Your task to perform on an android device: create a new album in the google photos Image 0: 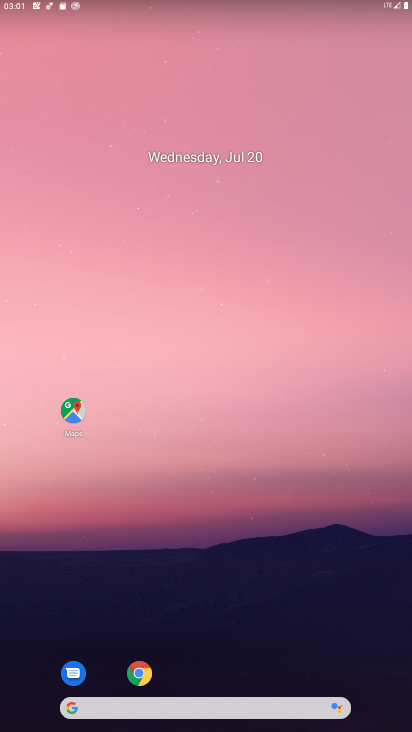
Step 0: drag from (207, 672) to (190, 56)
Your task to perform on an android device: create a new album in the google photos Image 1: 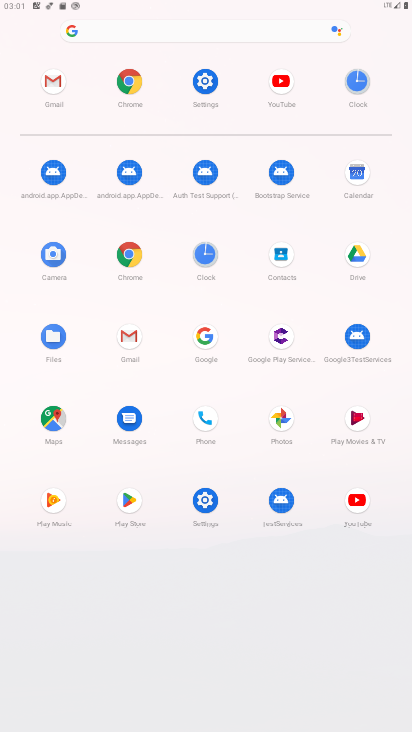
Step 1: click (285, 434)
Your task to perform on an android device: create a new album in the google photos Image 2: 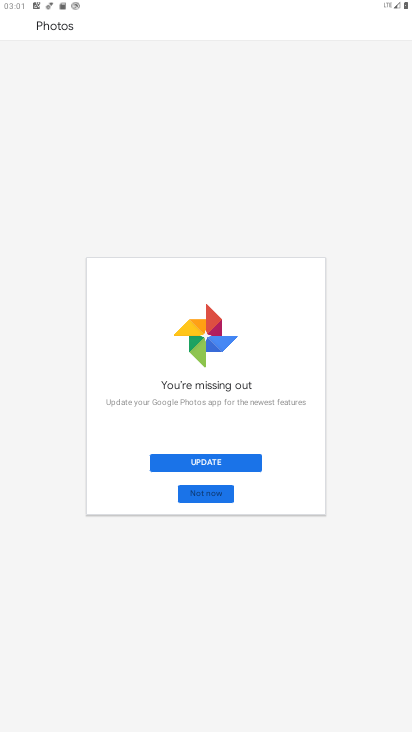
Step 2: click (216, 496)
Your task to perform on an android device: create a new album in the google photos Image 3: 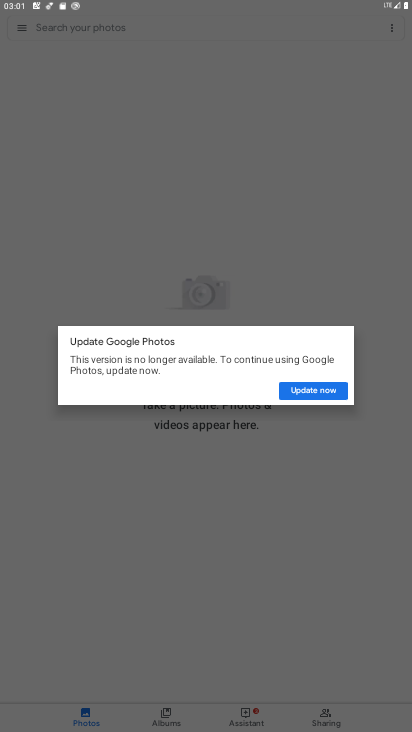
Step 3: click (294, 389)
Your task to perform on an android device: create a new album in the google photos Image 4: 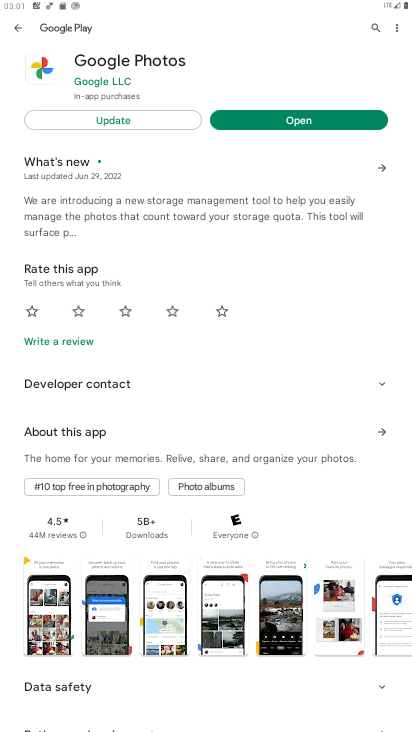
Step 4: click (289, 117)
Your task to perform on an android device: create a new album in the google photos Image 5: 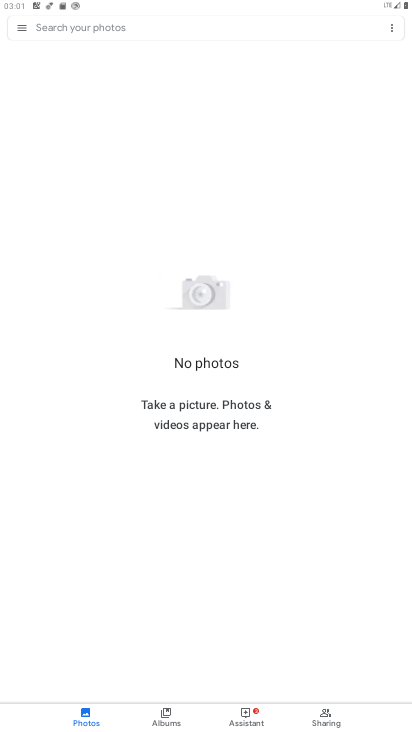
Step 5: click (162, 715)
Your task to perform on an android device: create a new album in the google photos Image 6: 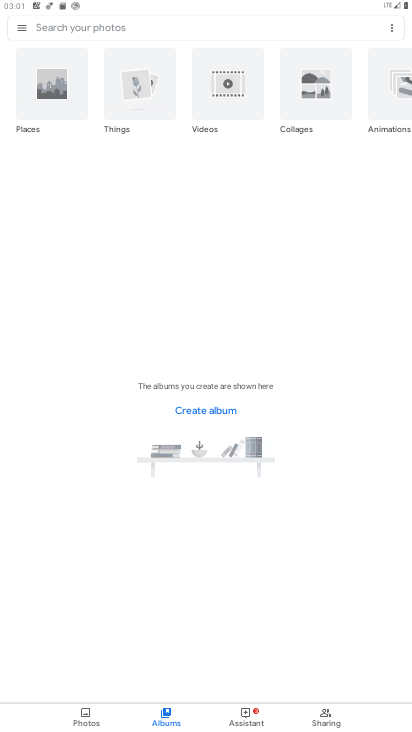
Step 6: click (205, 408)
Your task to perform on an android device: create a new album in the google photos Image 7: 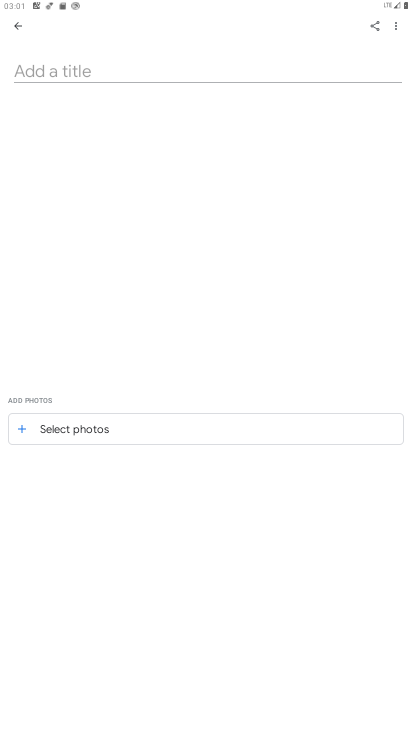
Step 7: click (16, 422)
Your task to perform on an android device: create a new album in the google photos Image 8: 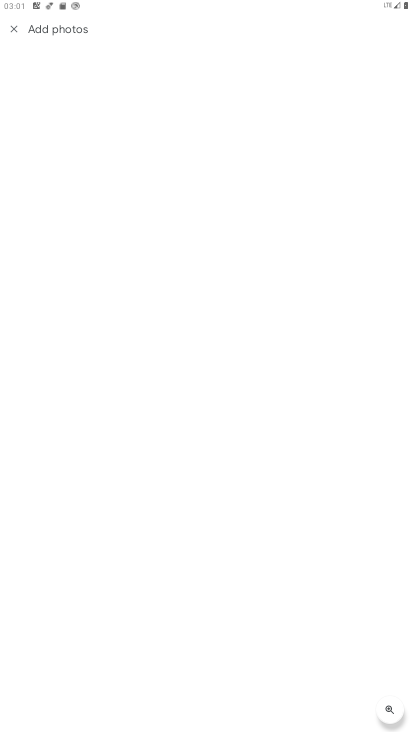
Step 8: task complete